Your task to perform on an android device: Open ESPN.com Image 0: 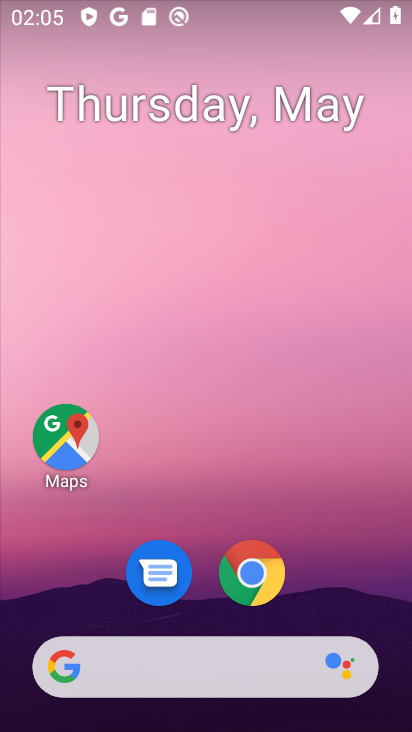
Step 0: click (262, 565)
Your task to perform on an android device: Open ESPN.com Image 1: 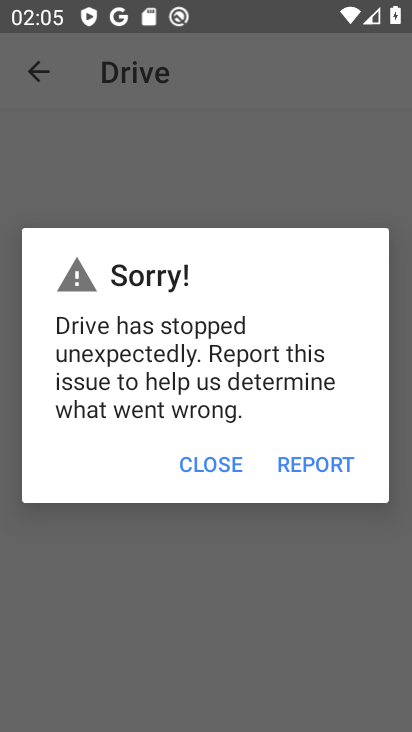
Step 1: click (254, 562)
Your task to perform on an android device: Open ESPN.com Image 2: 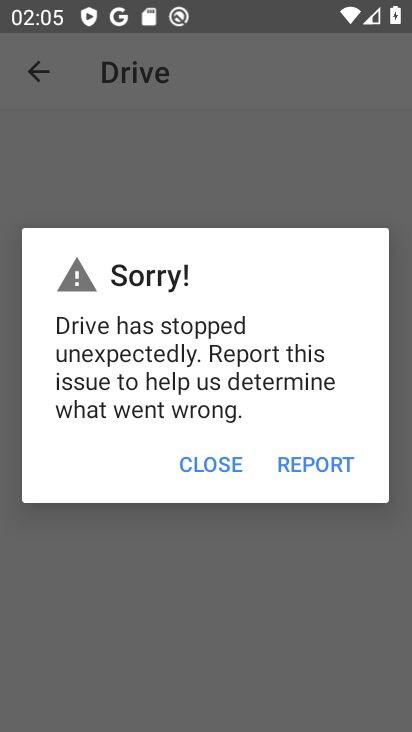
Step 2: click (201, 470)
Your task to perform on an android device: Open ESPN.com Image 3: 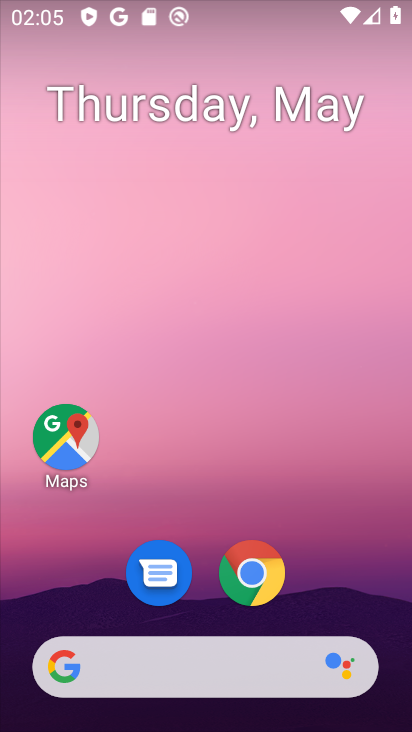
Step 3: click (248, 572)
Your task to perform on an android device: Open ESPN.com Image 4: 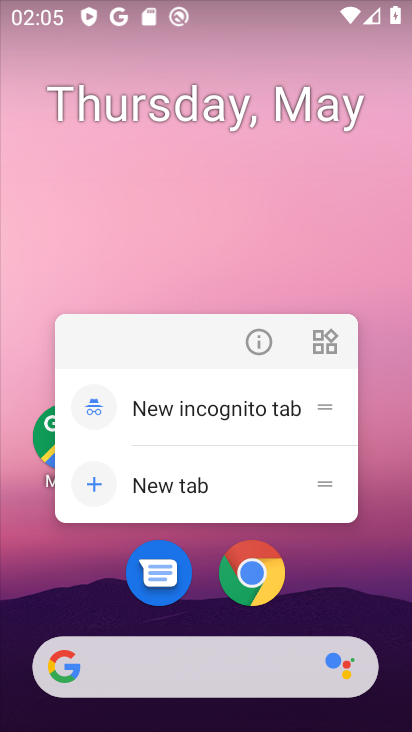
Step 4: click (251, 572)
Your task to perform on an android device: Open ESPN.com Image 5: 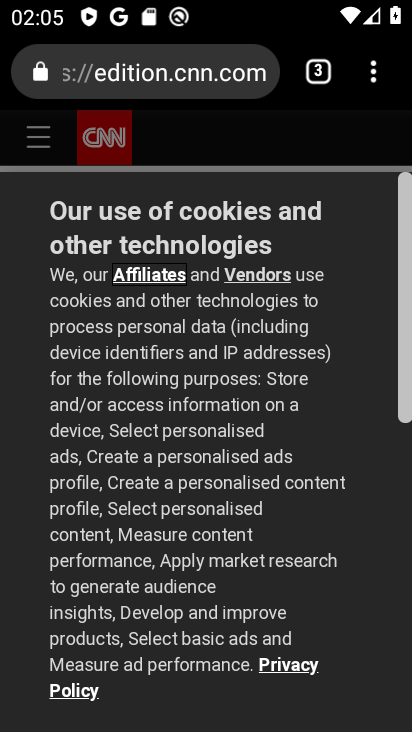
Step 5: click (383, 73)
Your task to perform on an android device: Open ESPN.com Image 6: 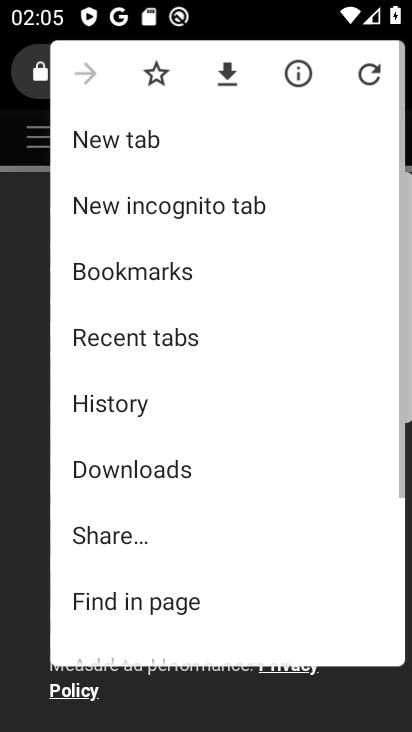
Step 6: click (102, 140)
Your task to perform on an android device: Open ESPN.com Image 7: 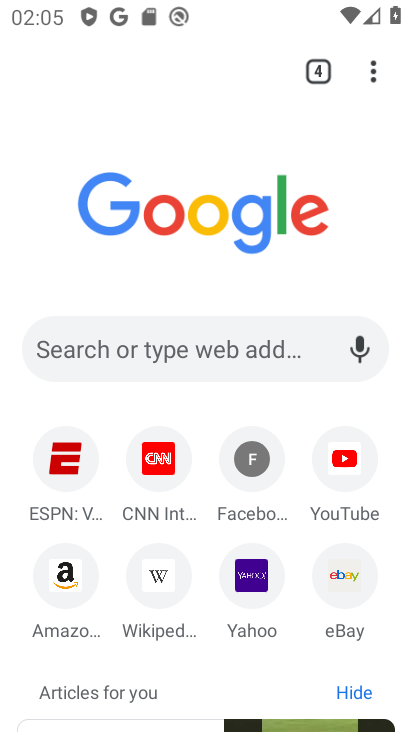
Step 7: click (62, 472)
Your task to perform on an android device: Open ESPN.com Image 8: 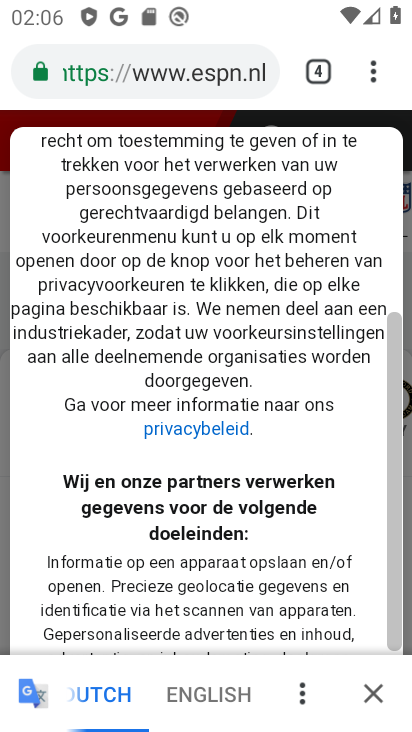
Step 8: task complete